Your task to perform on an android device: Open Android settings Image 0: 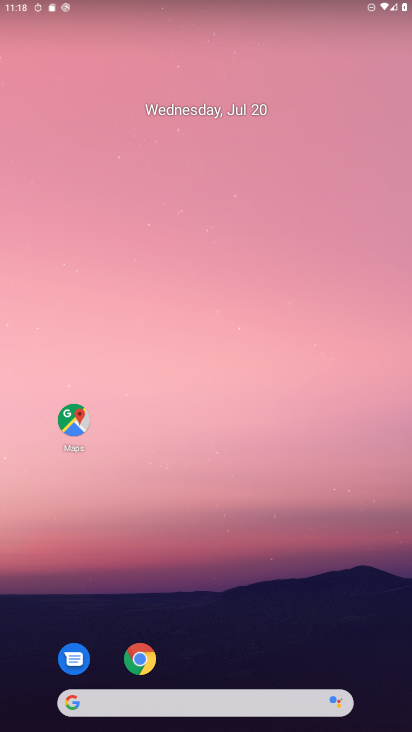
Step 0: drag from (306, 612) to (279, 61)
Your task to perform on an android device: Open Android settings Image 1: 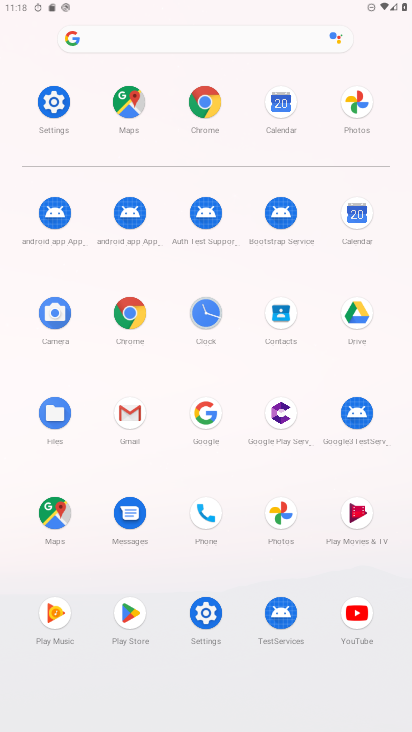
Step 1: click (62, 102)
Your task to perform on an android device: Open Android settings Image 2: 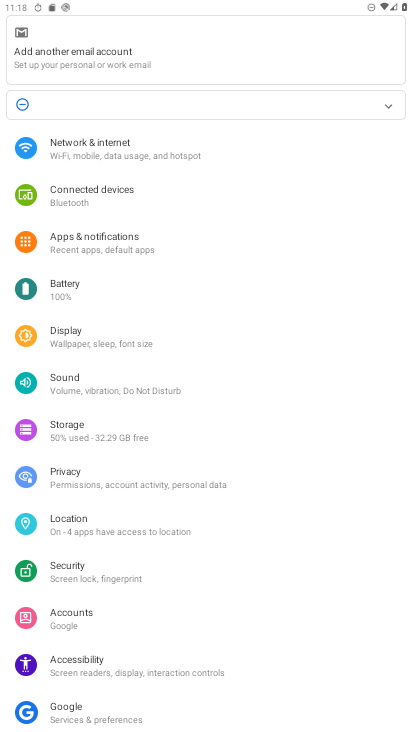
Step 2: task complete